Your task to perform on an android device: Find coffee shops on Maps Image 0: 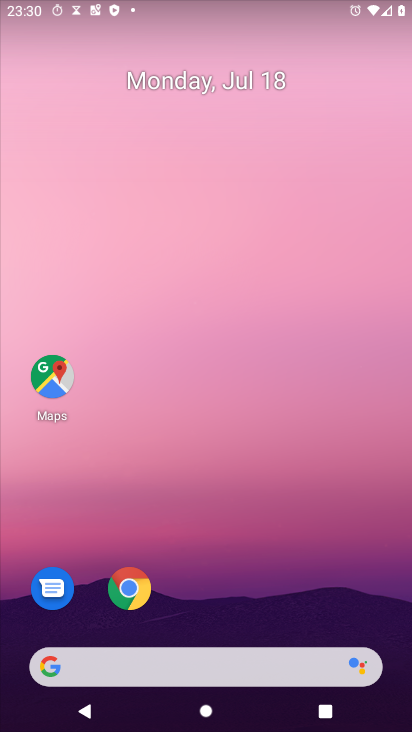
Step 0: press home button
Your task to perform on an android device: Find coffee shops on Maps Image 1: 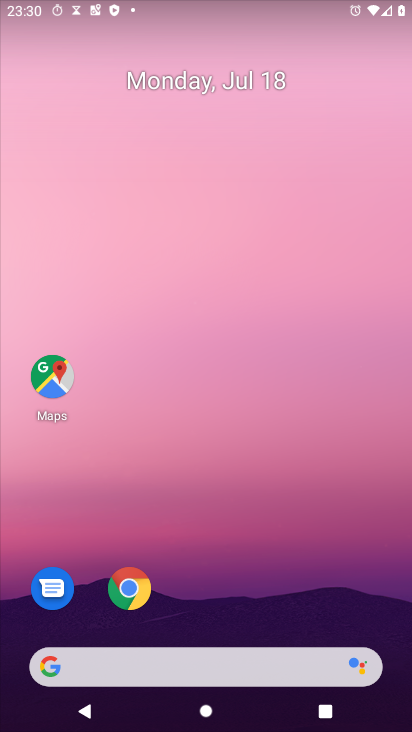
Step 1: drag from (190, 668) to (282, 154)
Your task to perform on an android device: Find coffee shops on Maps Image 2: 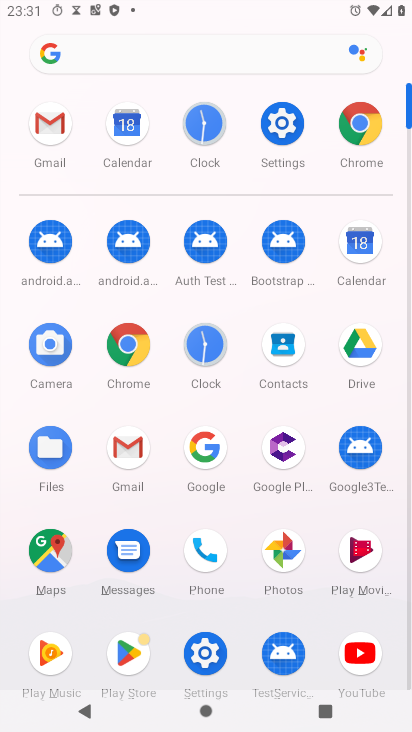
Step 2: click (48, 552)
Your task to perform on an android device: Find coffee shops on Maps Image 3: 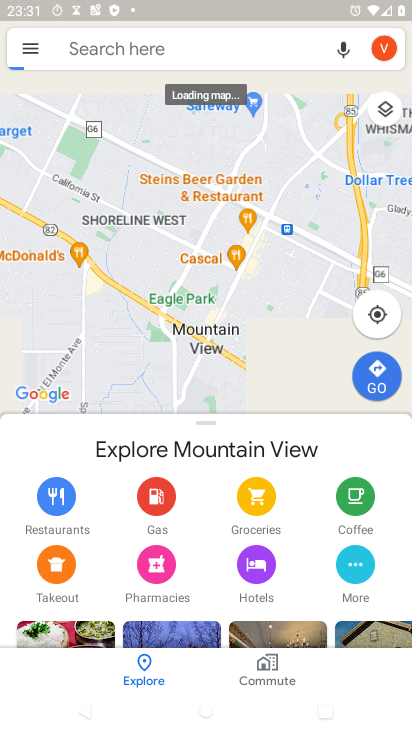
Step 3: click (154, 45)
Your task to perform on an android device: Find coffee shops on Maps Image 4: 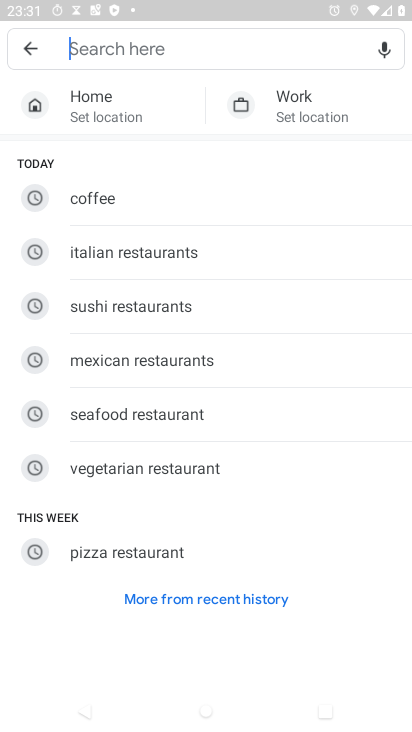
Step 4: click (200, 52)
Your task to perform on an android device: Find coffee shops on Maps Image 5: 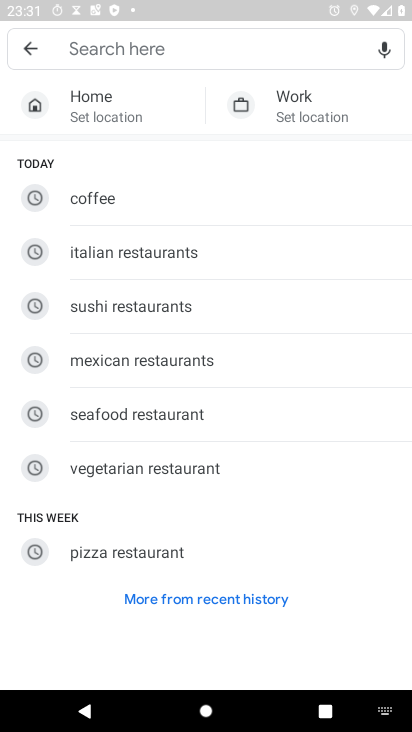
Step 5: click (104, 198)
Your task to perform on an android device: Find coffee shops on Maps Image 6: 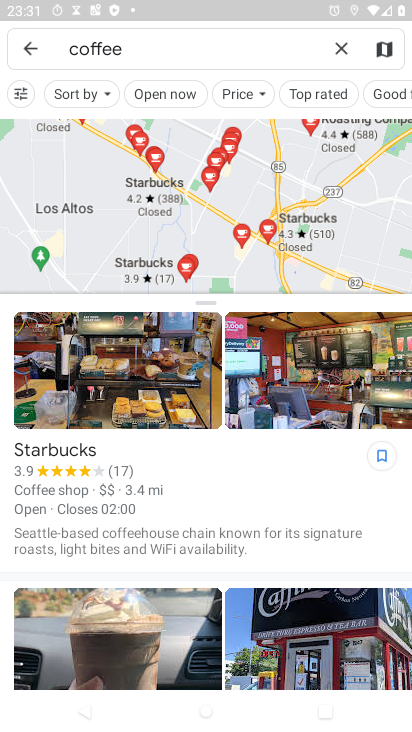
Step 6: task complete